Your task to perform on an android device: What is the recent news? Image 0: 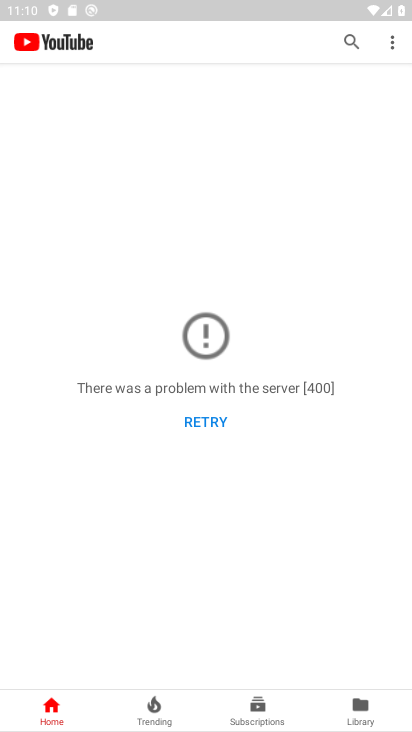
Step 0: press home button
Your task to perform on an android device: What is the recent news? Image 1: 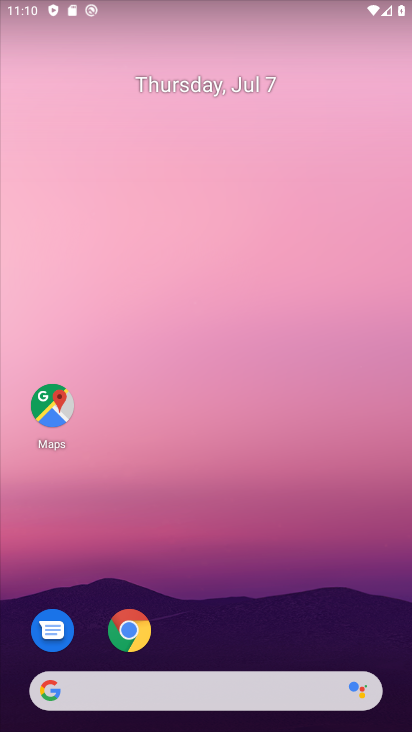
Step 1: drag from (6, 250) to (370, 286)
Your task to perform on an android device: What is the recent news? Image 2: 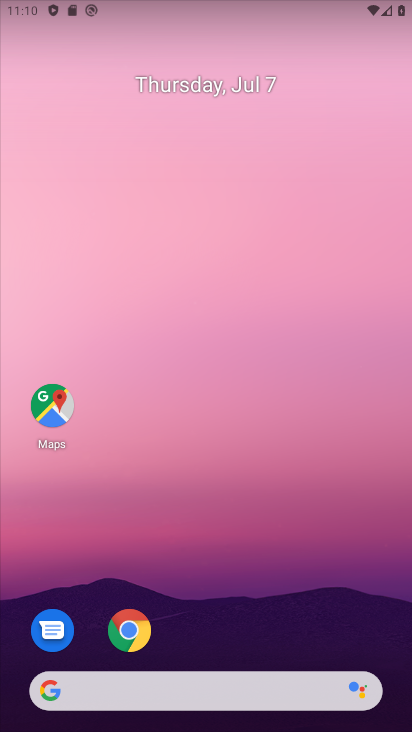
Step 2: drag from (5, 280) to (386, 302)
Your task to perform on an android device: What is the recent news? Image 3: 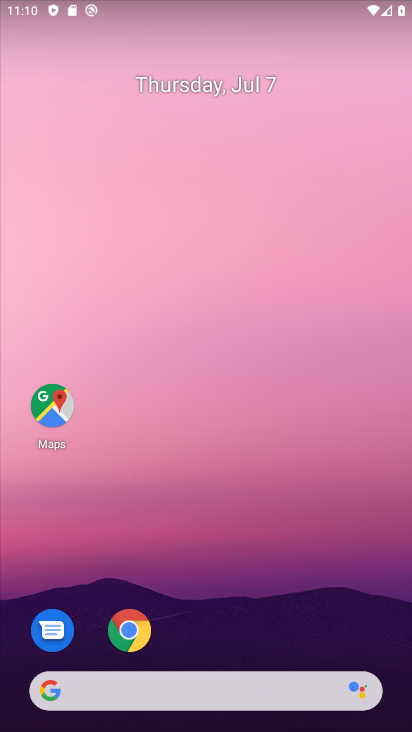
Step 3: drag from (7, 246) to (388, 270)
Your task to perform on an android device: What is the recent news? Image 4: 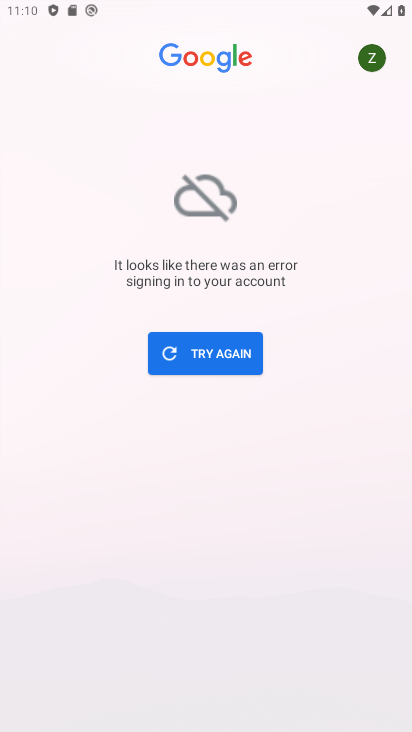
Step 4: click (210, 349)
Your task to perform on an android device: What is the recent news? Image 5: 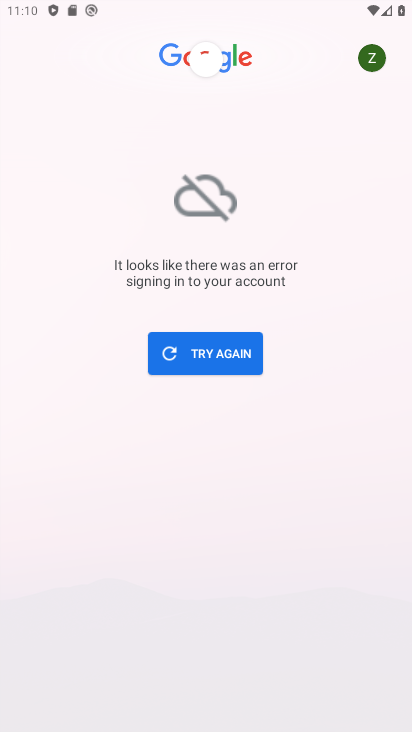
Step 5: task complete